Your task to perform on an android device: turn off notifications settings in the gmail app Image 0: 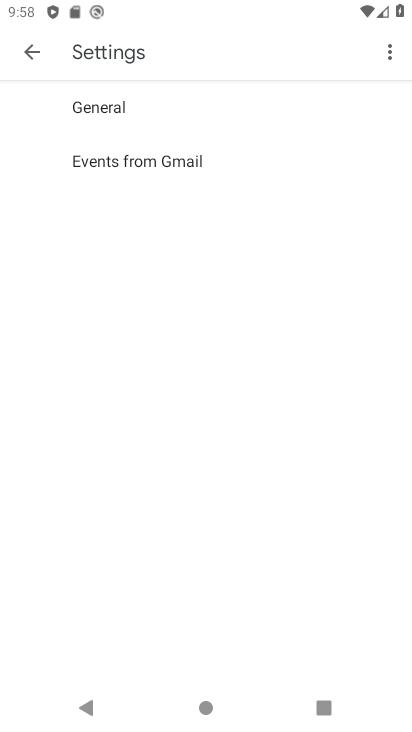
Step 0: press home button
Your task to perform on an android device: turn off notifications settings in the gmail app Image 1: 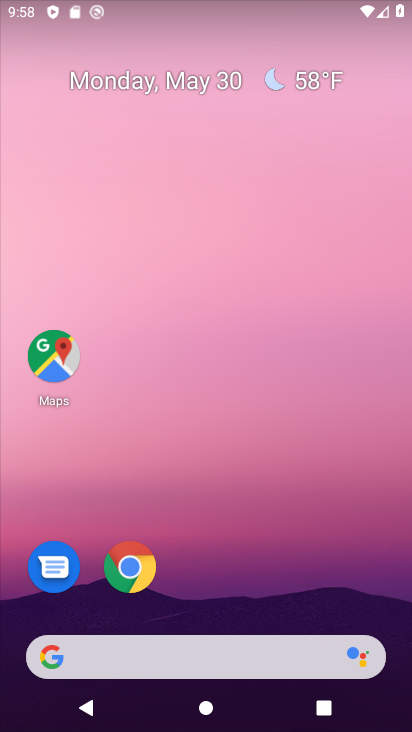
Step 1: drag from (145, 584) to (174, 212)
Your task to perform on an android device: turn off notifications settings in the gmail app Image 2: 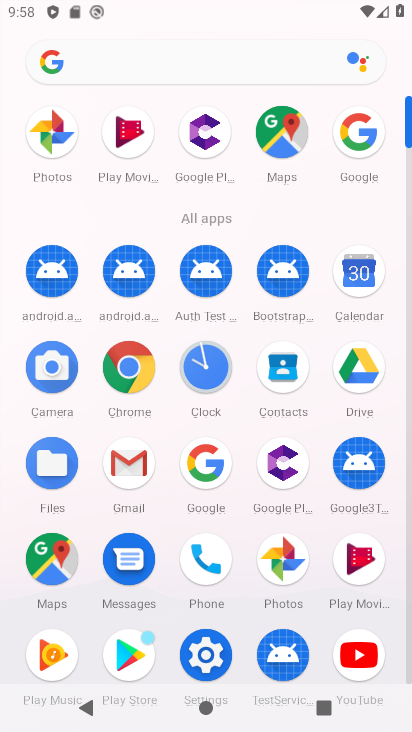
Step 2: click (115, 456)
Your task to perform on an android device: turn off notifications settings in the gmail app Image 3: 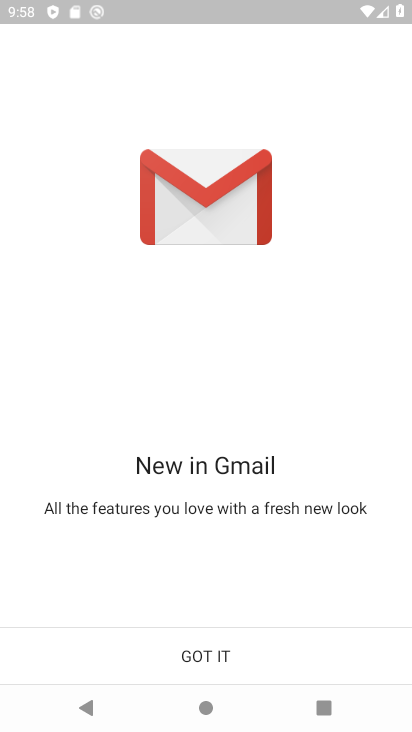
Step 3: click (217, 647)
Your task to perform on an android device: turn off notifications settings in the gmail app Image 4: 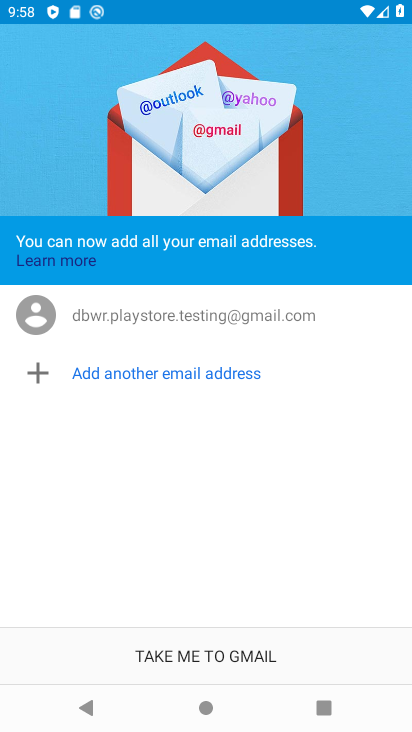
Step 4: click (218, 646)
Your task to perform on an android device: turn off notifications settings in the gmail app Image 5: 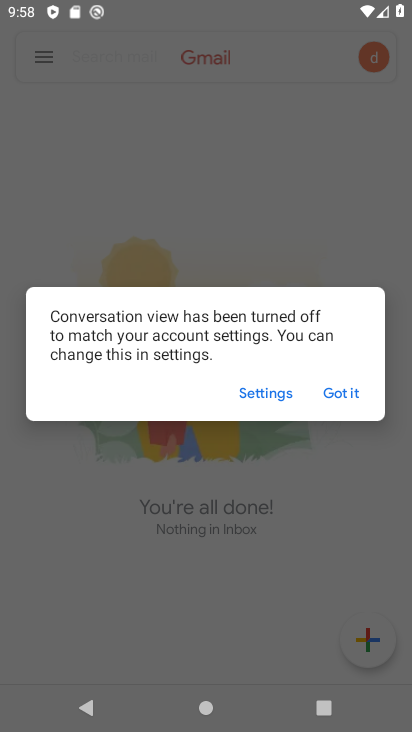
Step 5: click (346, 391)
Your task to perform on an android device: turn off notifications settings in the gmail app Image 6: 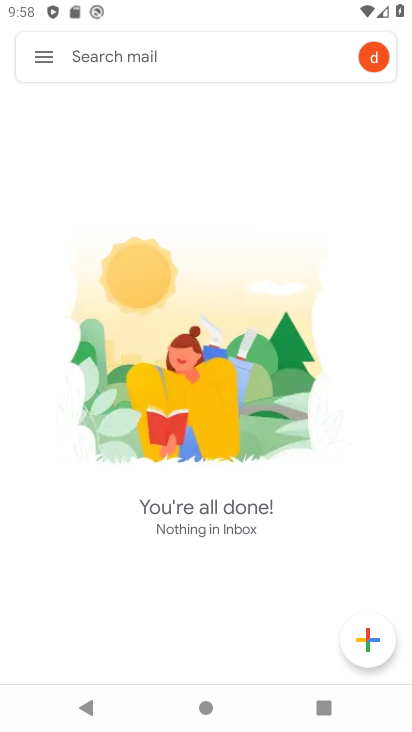
Step 6: click (35, 54)
Your task to perform on an android device: turn off notifications settings in the gmail app Image 7: 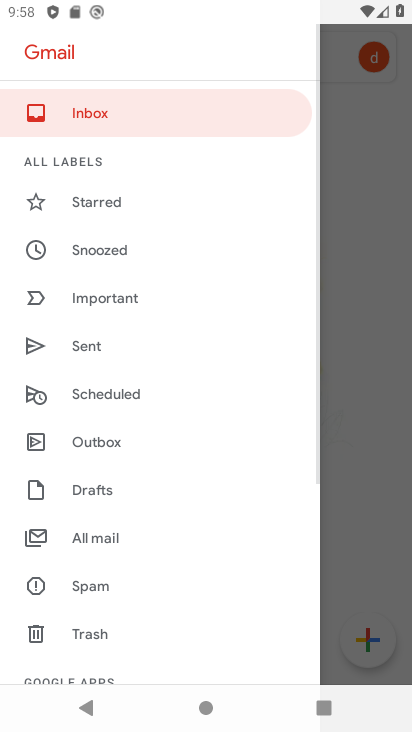
Step 7: drag from (156, 599) to (159, 231)
Your task to perform on an android device: turn off notifications settings in the gmail app Image 8: 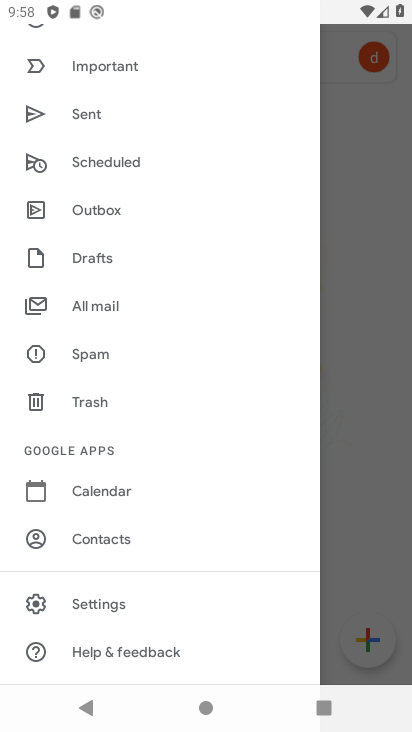
Step 8: click (113, 605)
Your task to perform on an android device: turn off notifications settings in the gmail app Image 9: 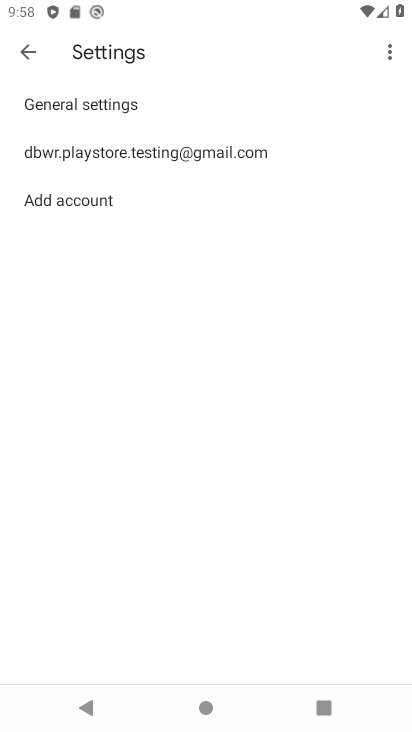
Step 9: click (87, 100)
Your task to perform on an android device: turn off notifications settings in the gmail app Image 10: 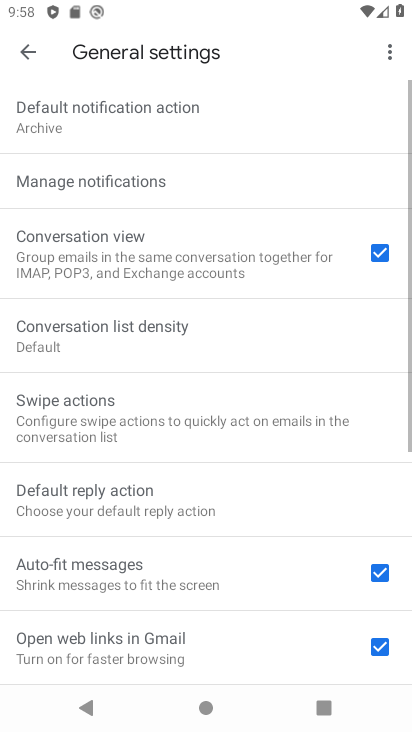
Step 10: click (113, 188)
Your task to perform on an android device: turn off notifications settings in the gmail app Image 11: 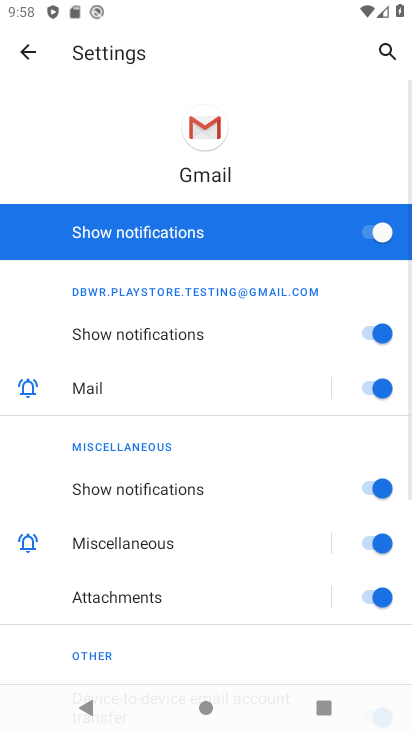
Step 11: click (368, 234)
Your task to perform on an android device: turn off notifications settings in the gmail app Image 12: 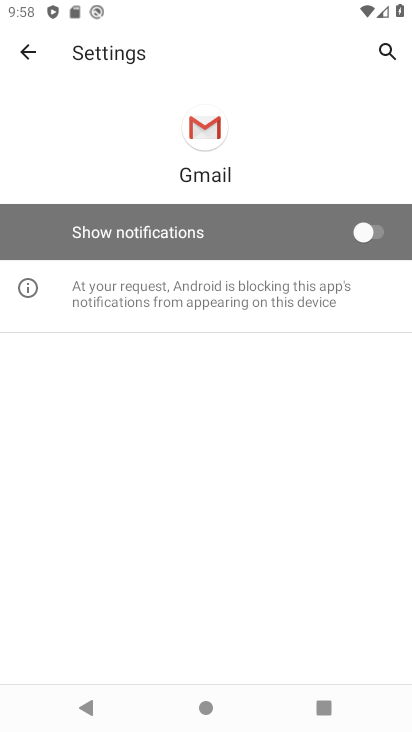
Step 12: task complete